Your task to perform on an android device: refresh tabs in the chrome app Image 0: 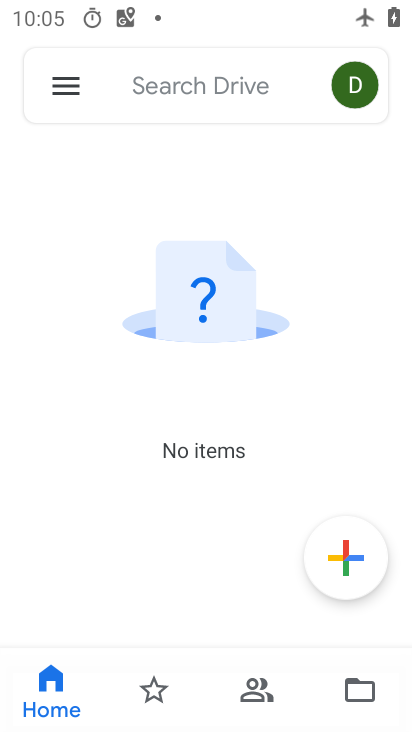
Step 0: press home button
Your task to perform on an android device: refresh tabs in the chrome app Image 1: 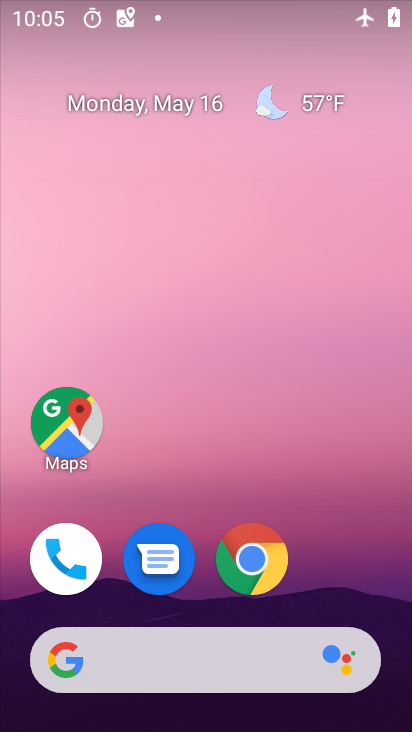
Step 1: click (255, 554)
Your task to perform on an android device: refresh tabs in the chrome app Image 2: 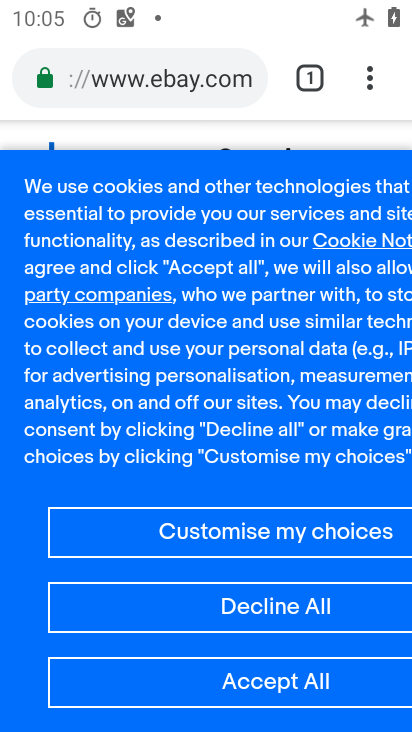
Step 2: click (366, 83)
Your task to perform on an android device: refresh tabs in the chrome app Image 3: 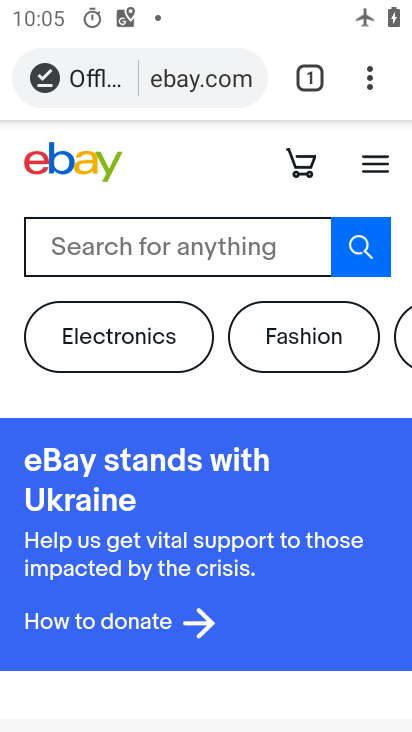
Step 3: task complete